Your task to perform on an android device: all mails in gmail Image 0: 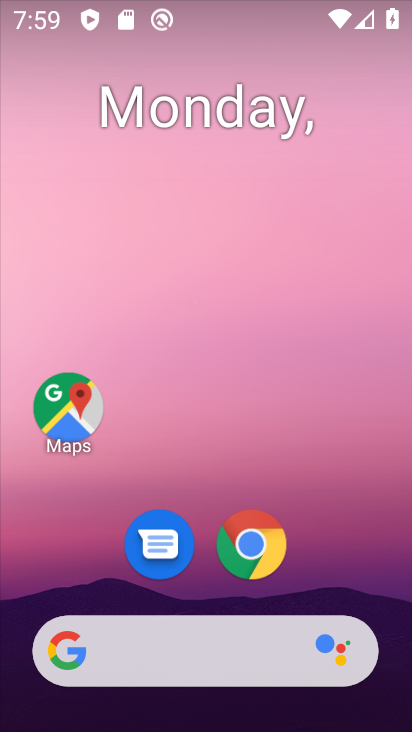
Step 0: drag from (232, 616) to (139, 6)
Your task to perform on an android device: all mails in gmail Image 1: 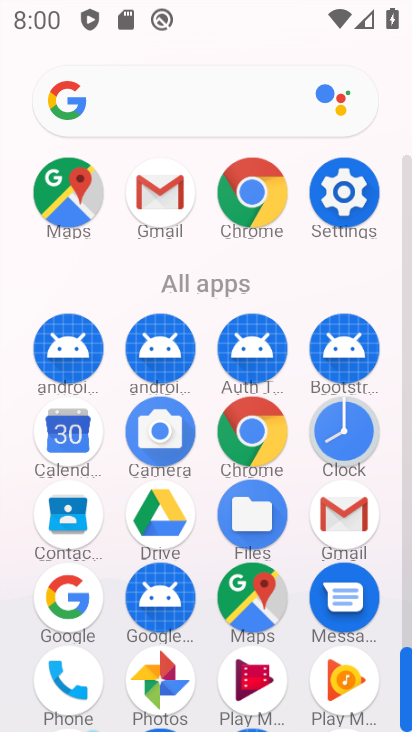
Step 1: click (354, 523)
Your task to perform on an android device: all mails in gmail Image 2: 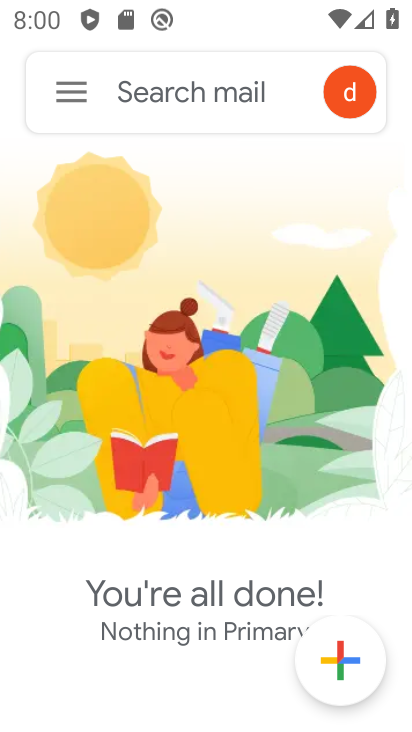
Step 2: click (70, 101)
Your task to perform on an android device: all mails in gmail Image 3: 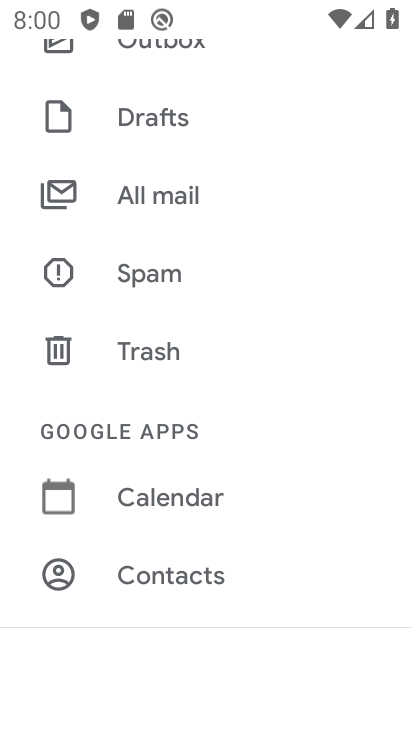
Step 3: click (106, 209)
Your task to perform on an android device: all mails in gmail Image 4: 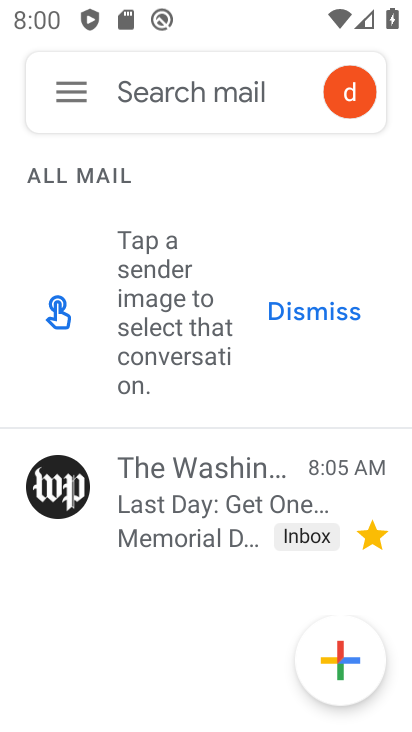
Step 4: task complete